Your task to perform on an android device: turn on bluetooth scan Image 0: 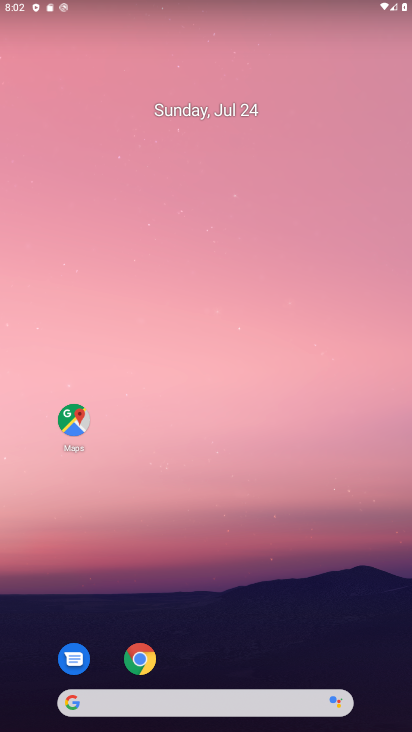
Step 0: drag from (198, 665) to (98, 0)
Your task to perform on an android device: turn on bluetooth scan Image 1: 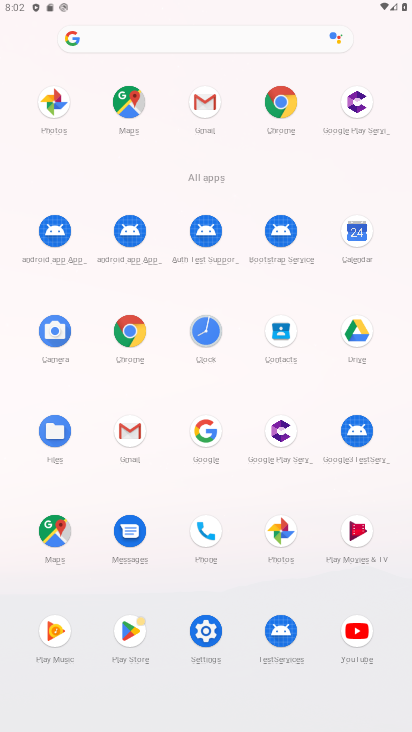
Step 1: click (208, 636)
Your task to perform on an android device: turn on bluetooth scan Image 2: 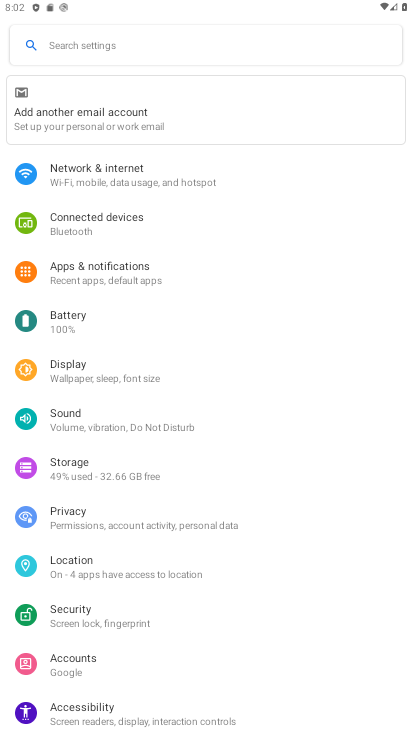
Step 2: click (93, 573)
Your task to perform on an android device: turn on bluetooth scan Image 3: 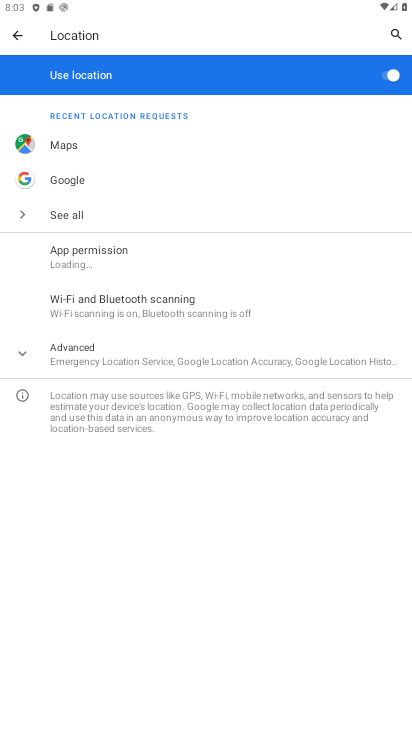
Step 3: click (183, 314)
Your task to perform on an android device: turn on bluetooth scan Image 4: 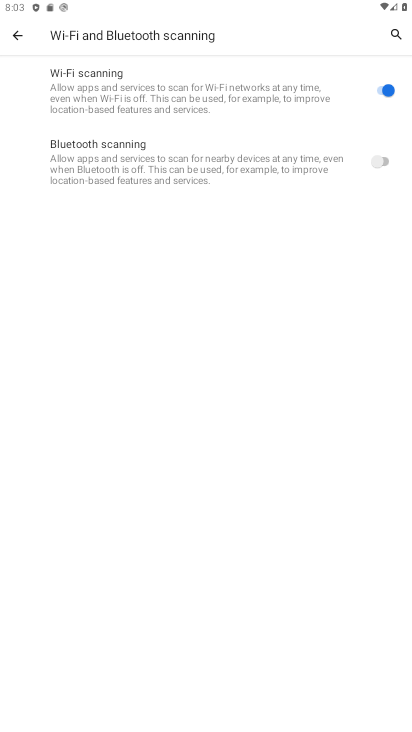
Step 4: click (364, 162)
Your task to perform on an android device: turn on bluetooth scan Image 5: 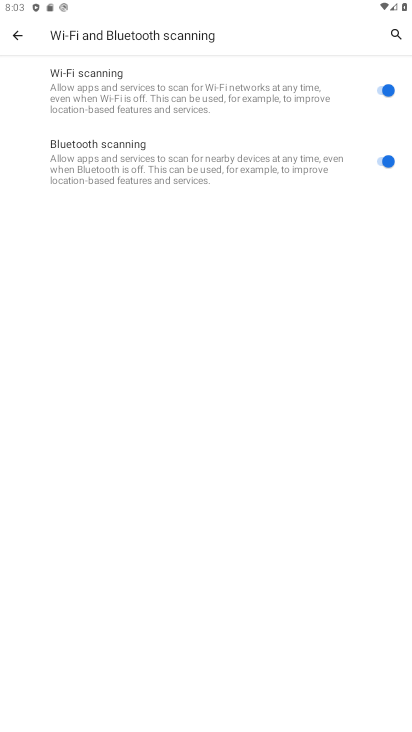
Step 5: task complete